Your task to perform on an android device: delete a single message in the gmail app Image 0: 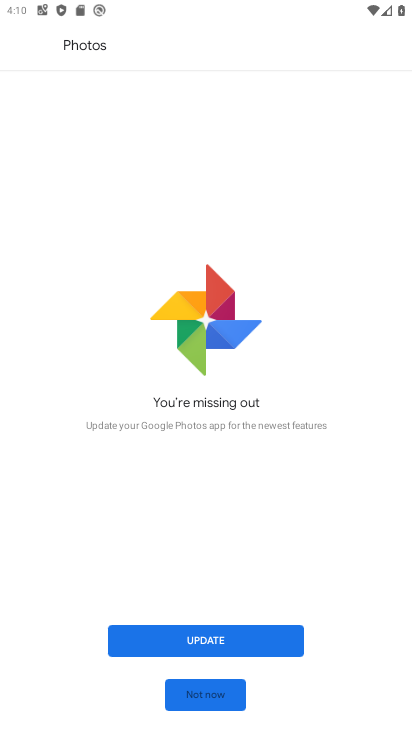
Step 0: press home button
Your task to perform on an android device: delete a single message in the gmail app Image 1: 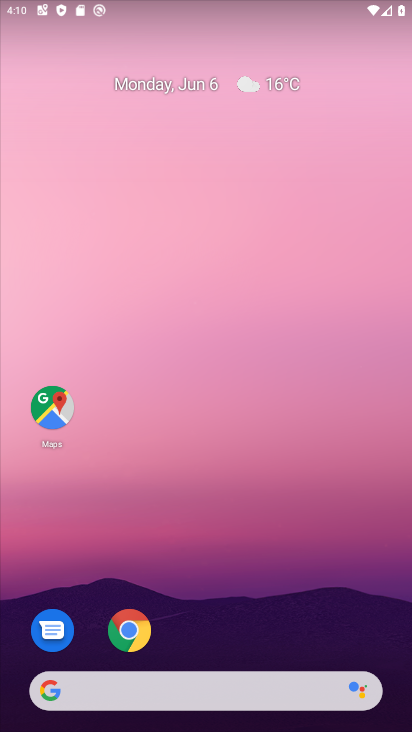
Step 1: drag from (245, 621) to (243, 110)
Your task to perform on an android device: delete a single message in the gmail app Image 2: 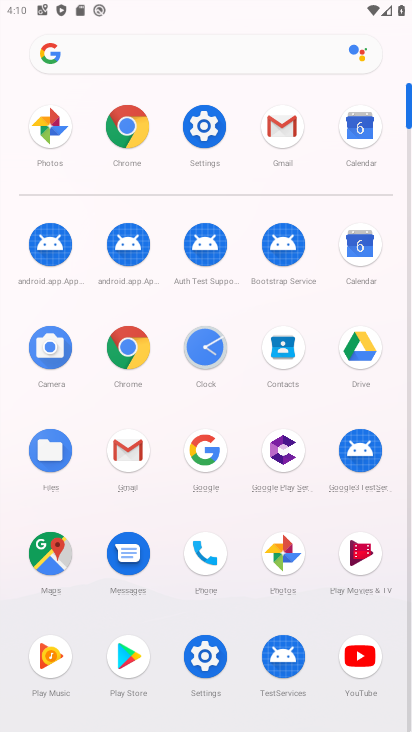
Step 2: click (287, 128)
Your task to perform on an android device: delete a single message in the gmail app Image 3: 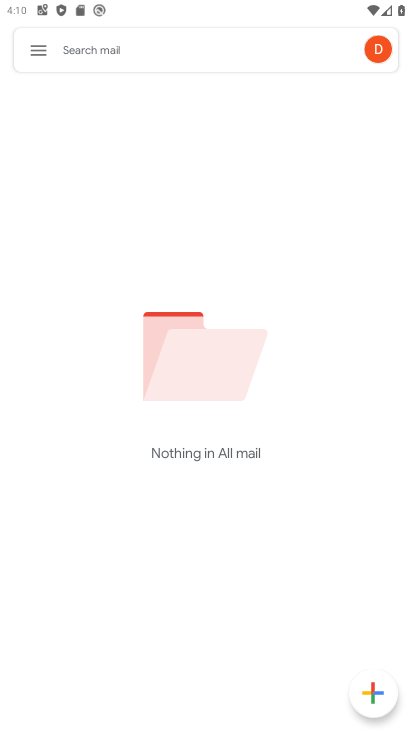
Step 3: click (41, 65)
Your task to perform on an android device: delete a single message in the gmail app Image 4: 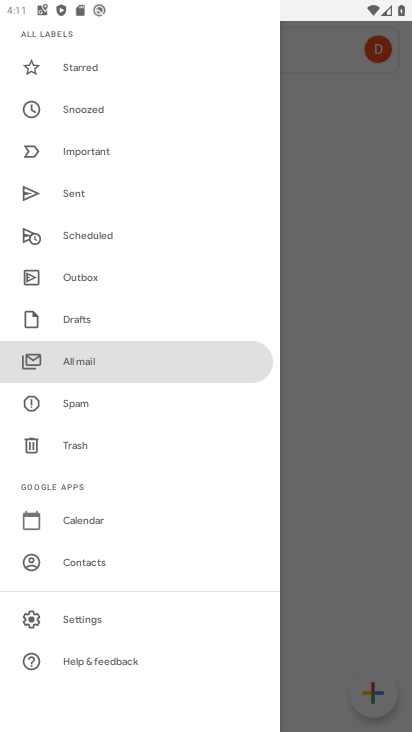
Step 4: click (90, 364)
Your task to perform on an android device: delete a single message in the gmail app Image 5: 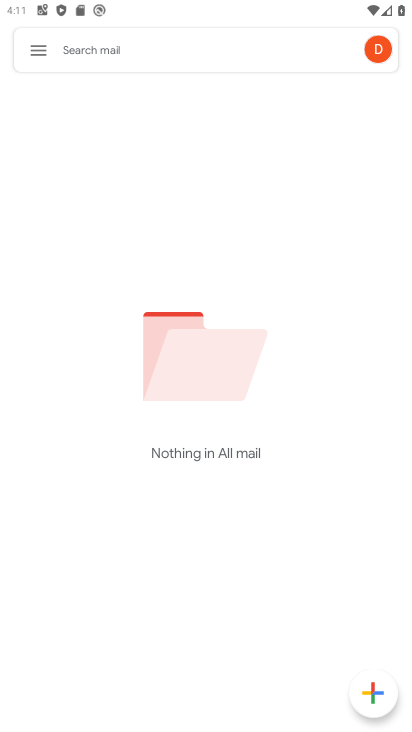
Step 5: task complete